Your task to perform on an android device: turn vacation reply on in the gmail app Image 0: 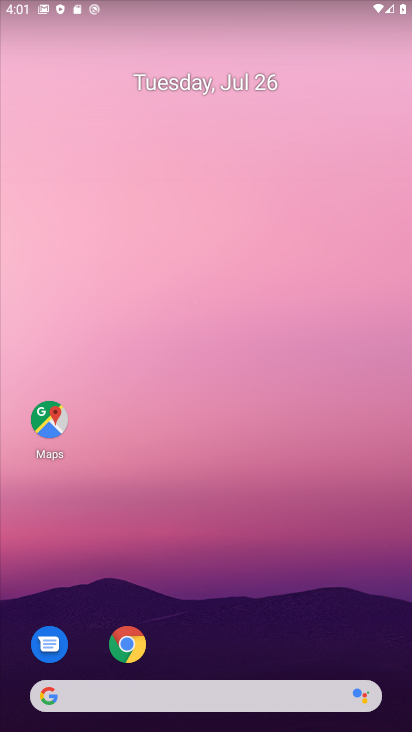
Step 0: drag from (385, 658) to (367, 116)
Your task to perform on an android device: turn vacation reply on in the gmail app Image 1: 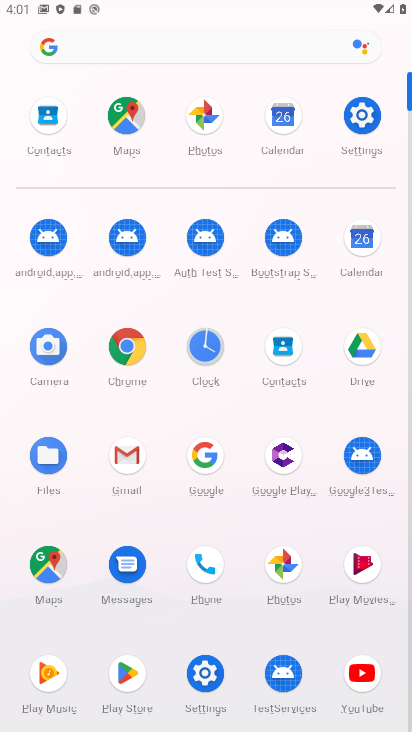
Step 1: click (127, 453)
Your task to perform on an android device: turn vacation reply on in the gmail app Image 2: 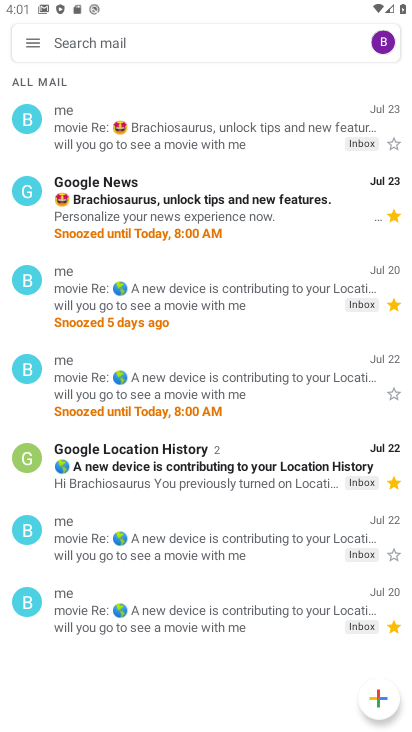
Step 2: click (34, 43)
Your task to perform on an android device: turn vacation reply on in the gmail app Image 3: 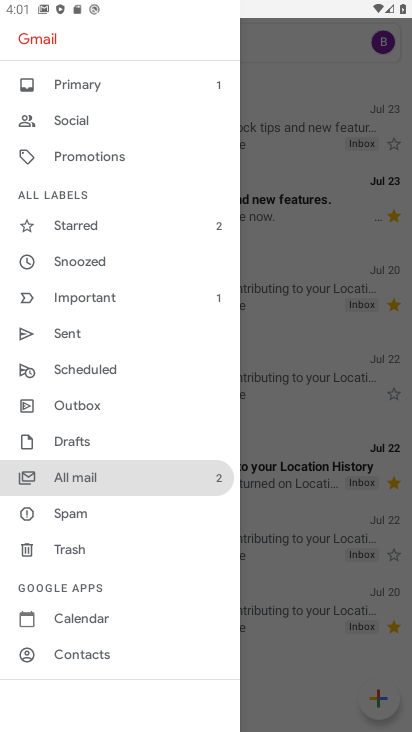
Step 3: drag from (141, 684) to (171, 182)
Your task to perform on an android device: turn vacation reply on in the gmail app Image 4: 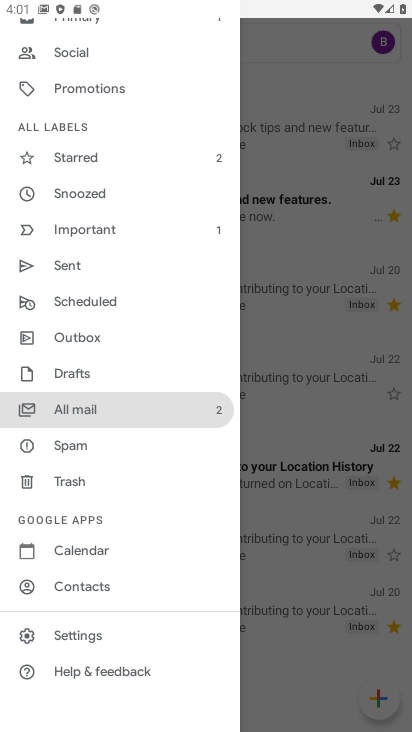
Step 4: click (76, 635)
Your task to perform on an android device: turn vacation reply on in the gmail app Image 5: 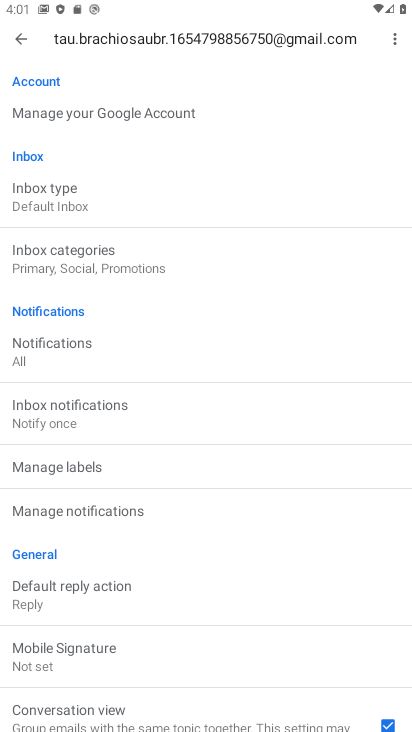
Step 5: drag from (197, 642) to (192, 276)
Your task to perform on an android device: turn vacation reply on in the gmail app Image 6: 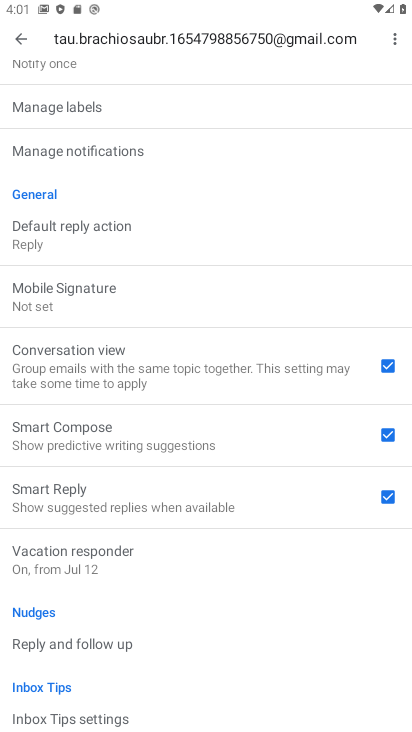
Step 6: click (74, 545)
Your task to perform on an android device: turn vacation reply on in the gmail app Image 7: 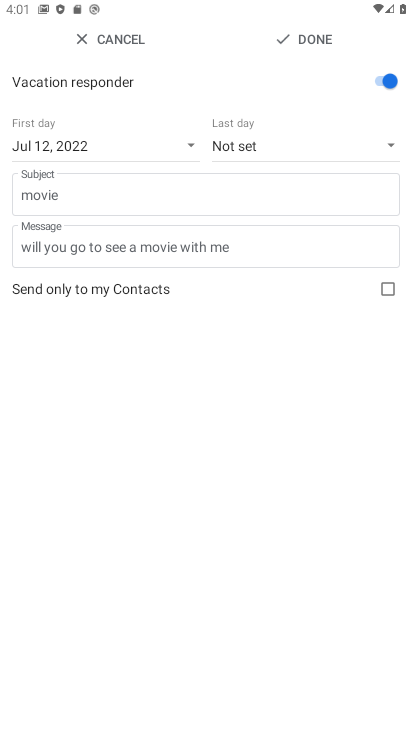
Step 7: click (309, 35)
Your task to perform on an android device: turn vacation reply on in the gmail app Image 8: 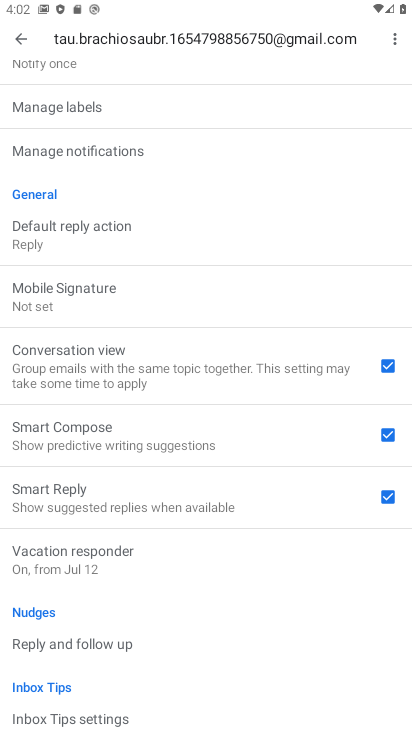
Step 8: task complete